Your task to perform on an android device: add a label to a message in the gmail app Image 0: 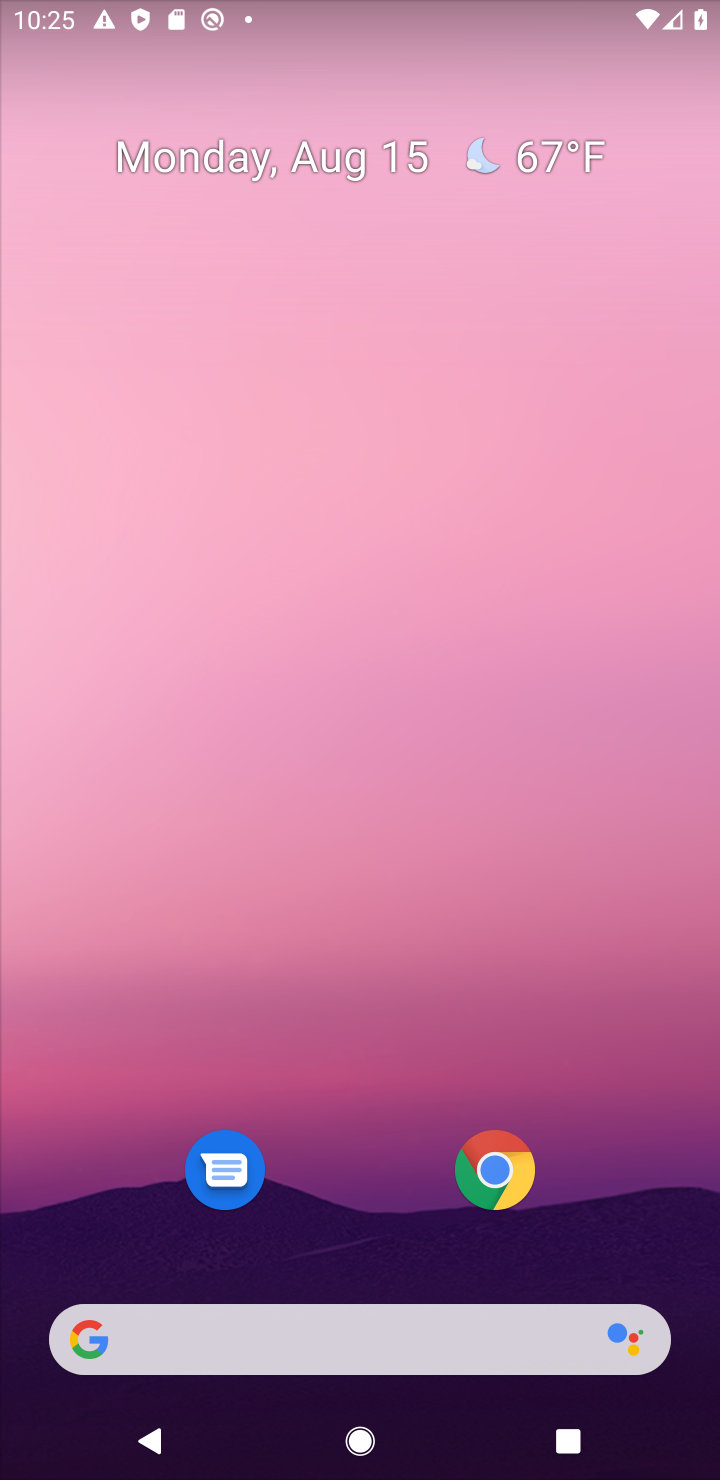
Step 0: click (387, 329)
Your task to perform on an android device: add a label to a message in the gmail app Image 1: 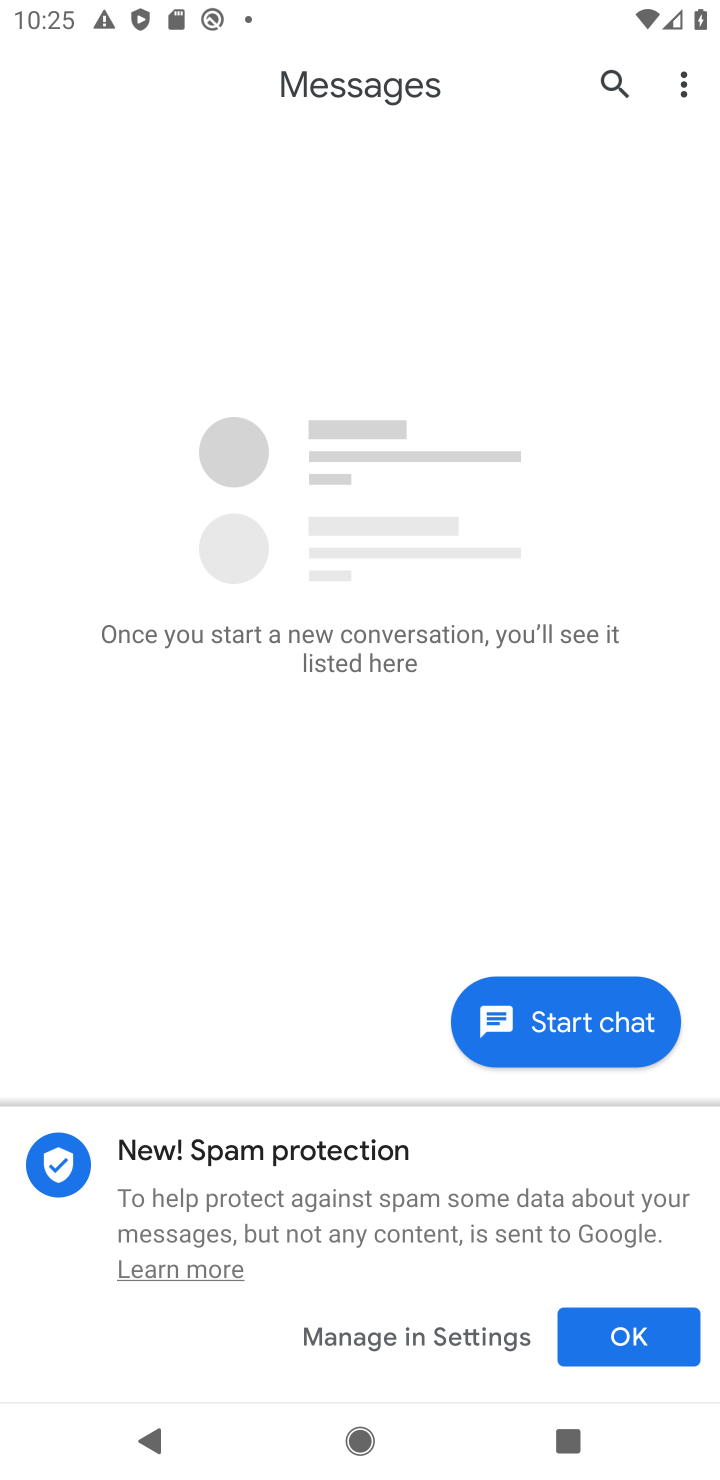
Step 1: drag from (397, 469) to (410, 164)
Your task to perform on an android device: add a label to a message in the gmail app Image 2: 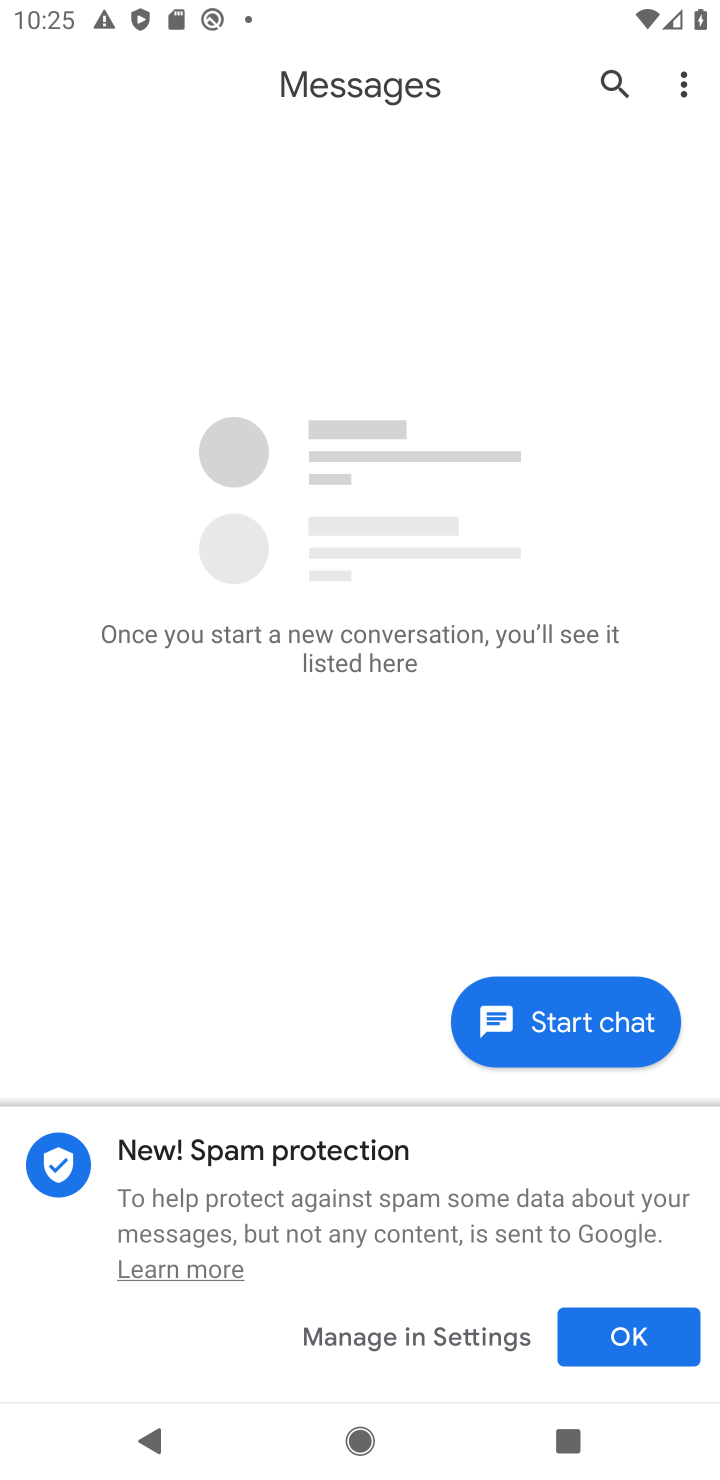
Step 2: click (335, 975)
Your task to perform on an android device: add a label to a message in the gmail app Image 3: 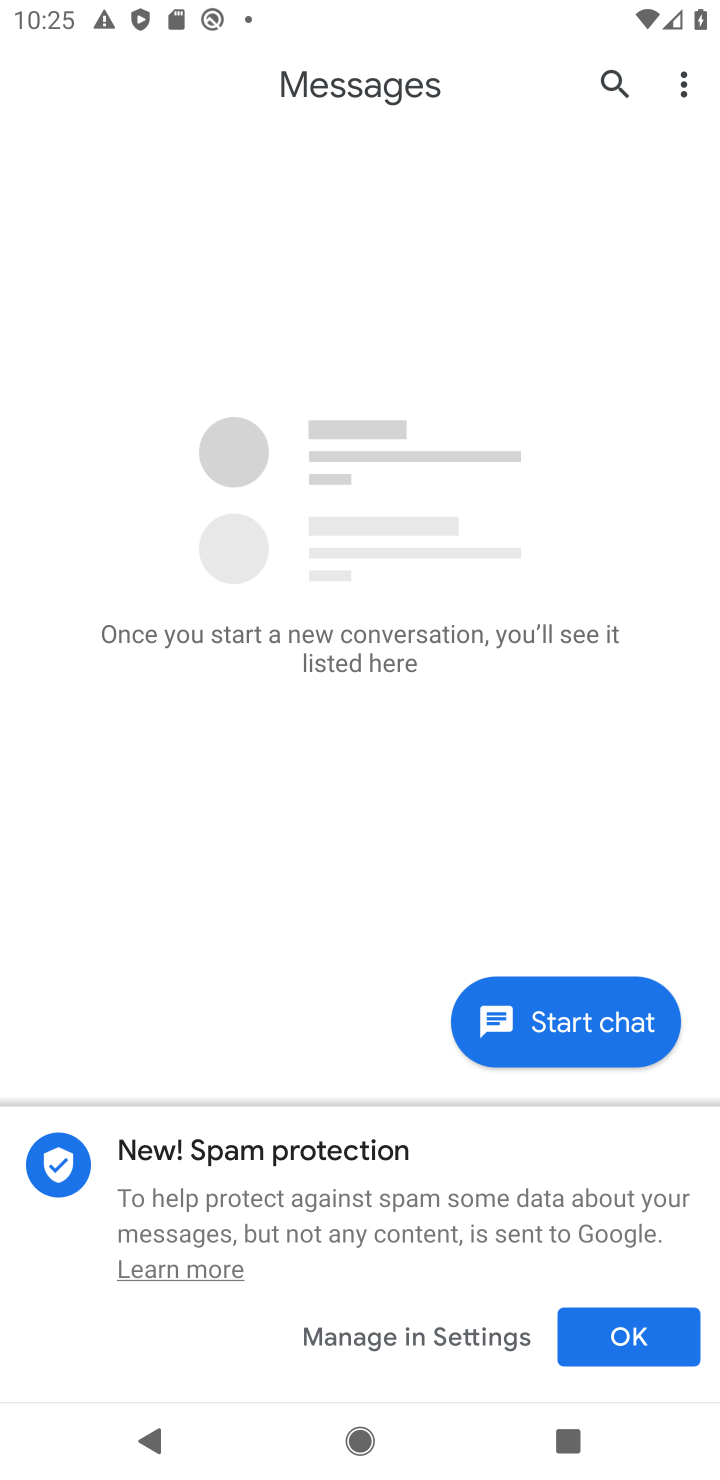
Step 3: press home button
Your task to perform on an android device: add a label to a message in the gmail app Image 4: 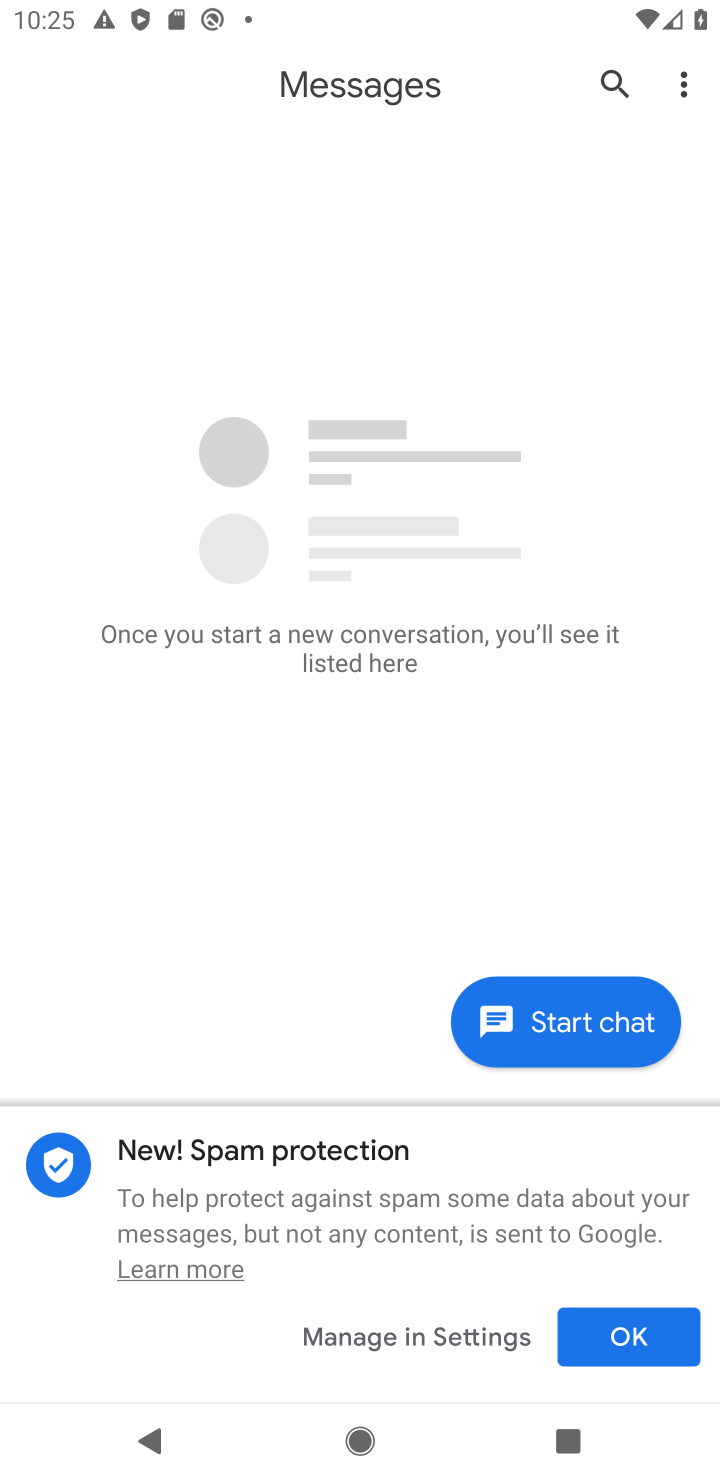
Step 4: press home button
Your task to perform on an android device: add a label to a message in the gmail app Image 5: 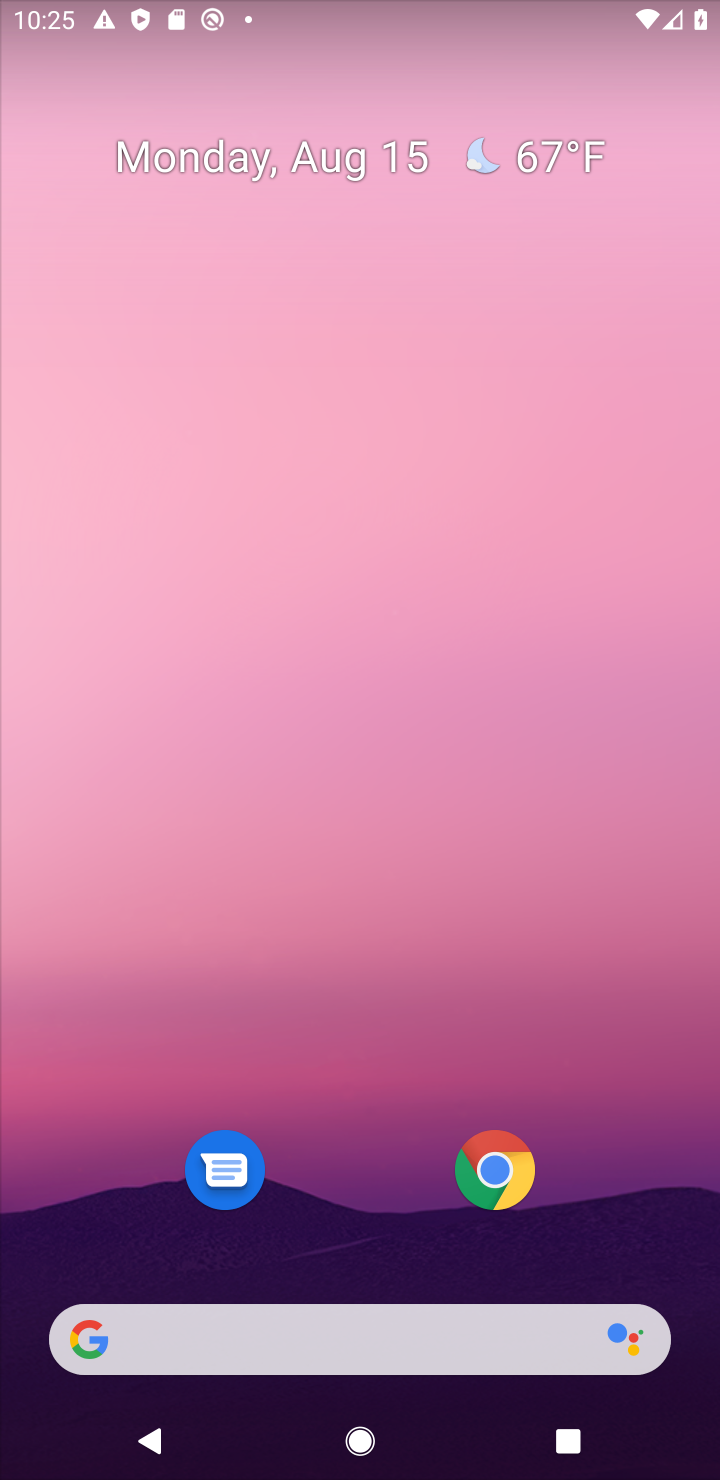
Step 5: drag from (391, 1242) to (440, 80)
Your task to perform on an android device: add a label to a message in the gmail app Image 6: 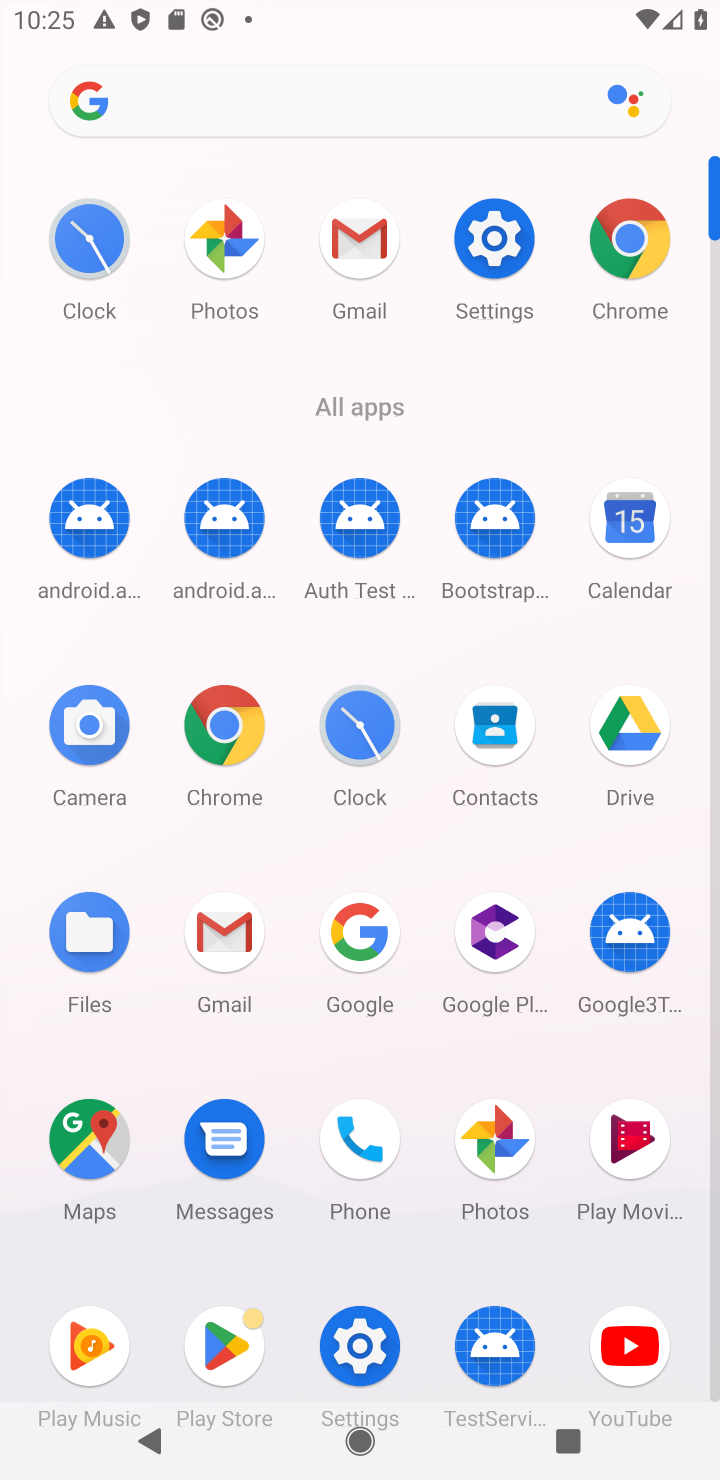
Step 6: click (358, 225)
Your task to perform on an android device: add a label to a message in the gmail app Image 7: 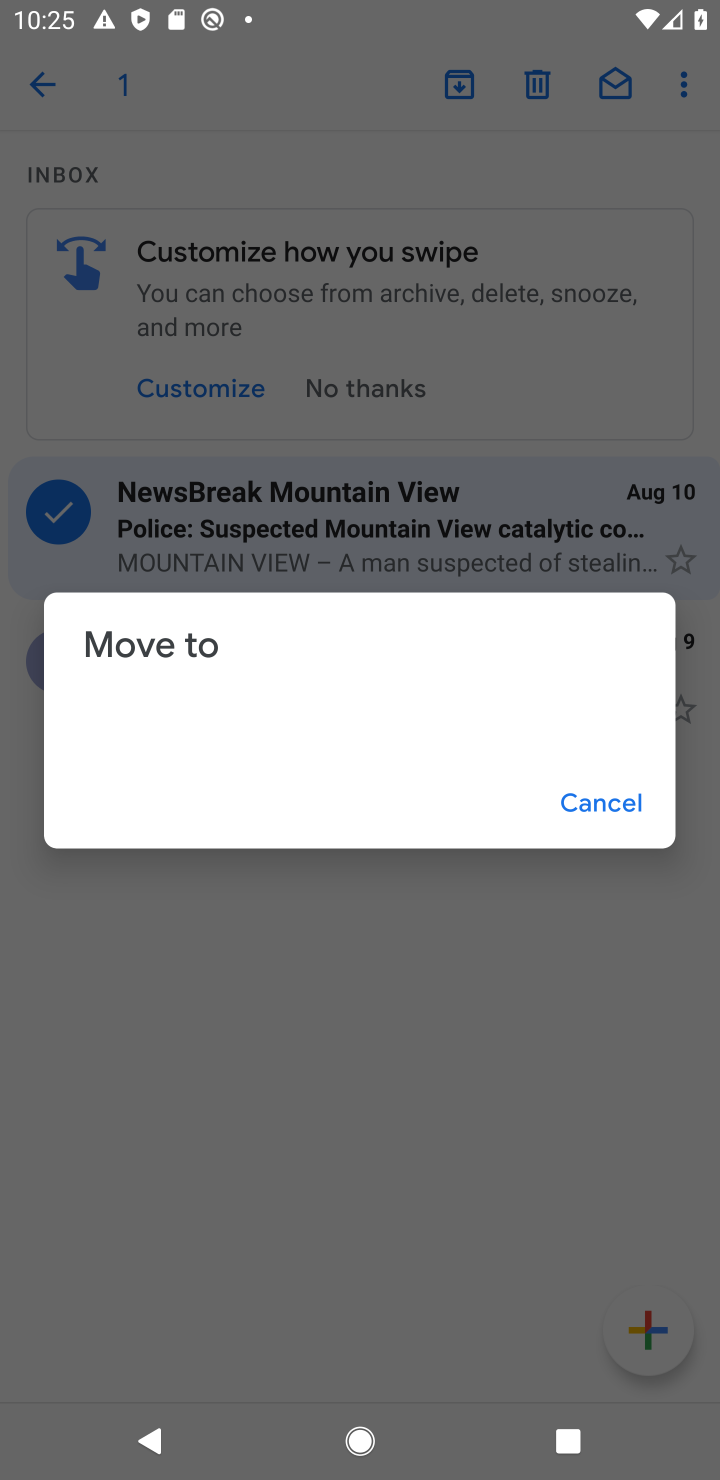
Step 7: click (618, 808)
Your task to perform on an android device: add a label to a message in the gmail app Image 8: 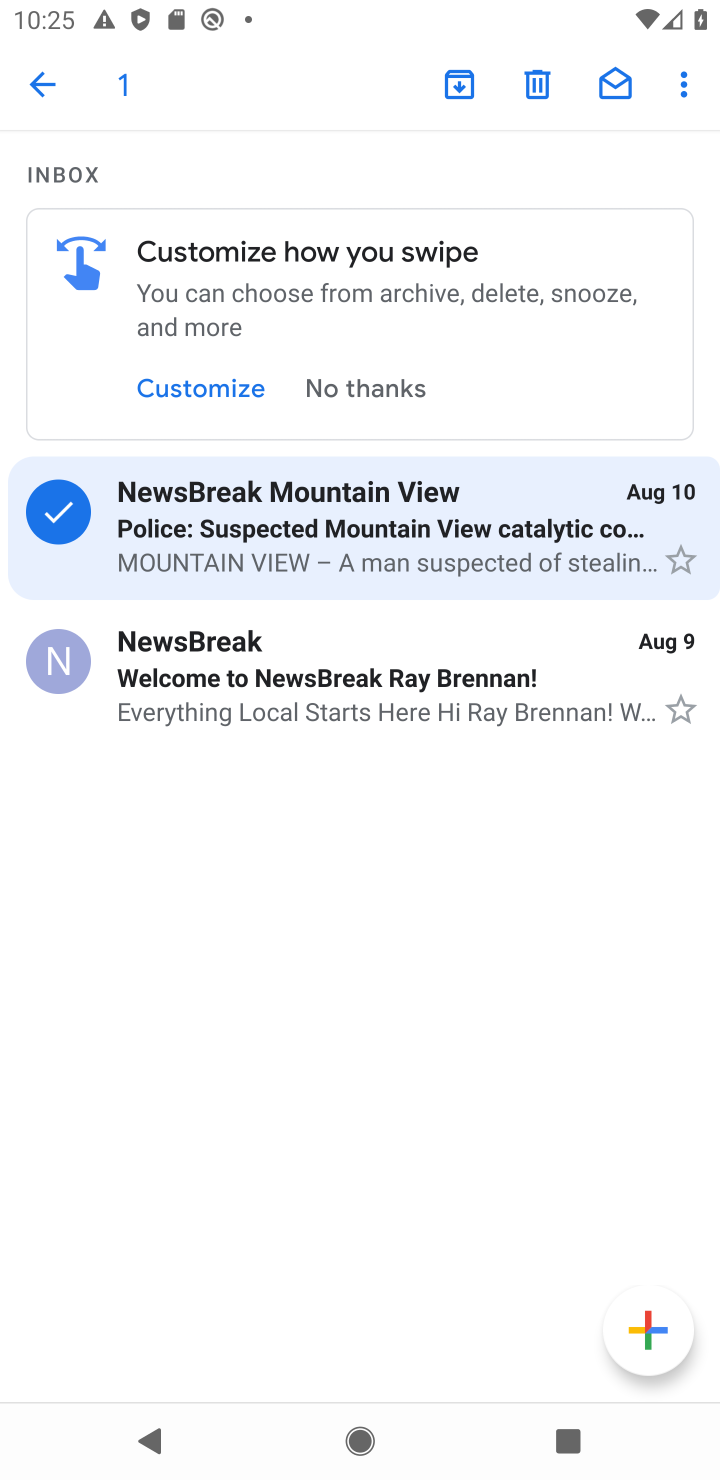
Step 8: click (687, 74)
Your task to perform on an android device: add a label to a message in the gmail app Image 9: 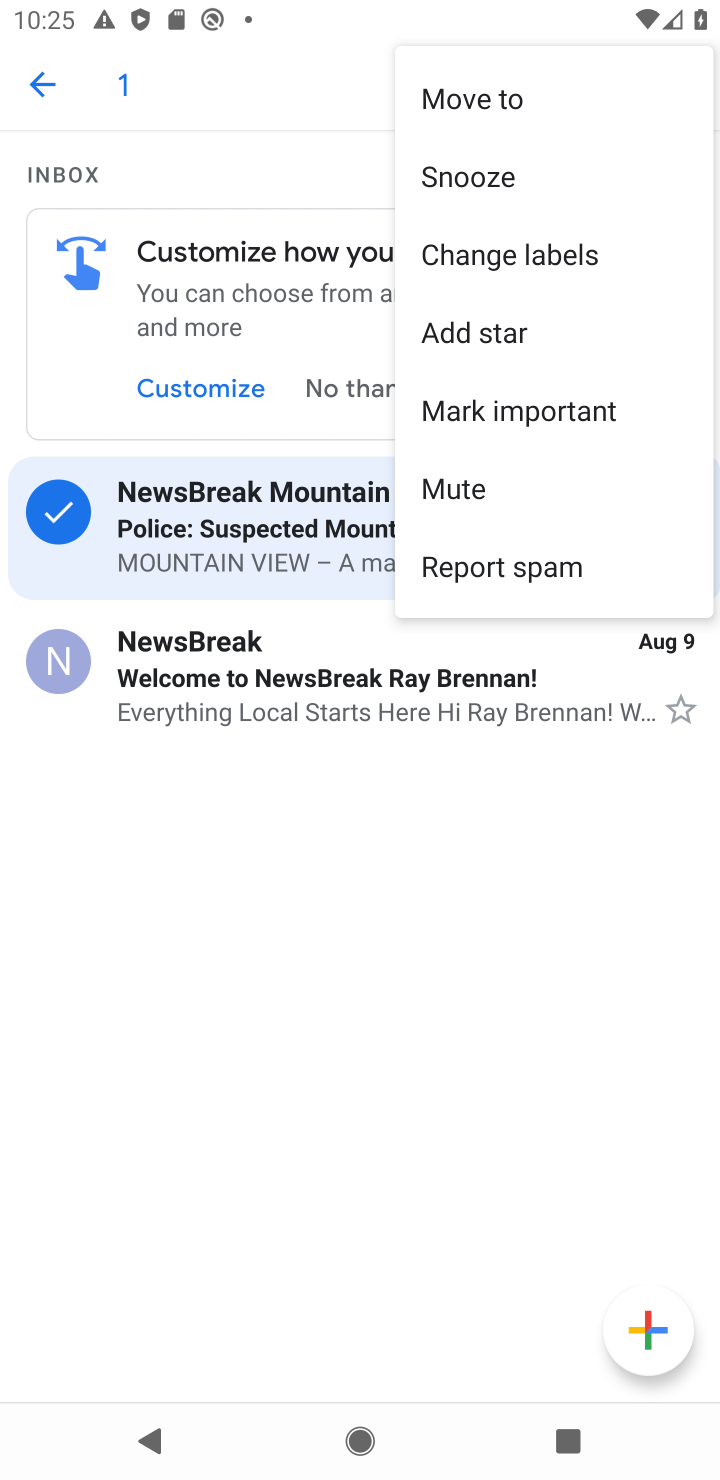
Step 9: click (554, 251)
Your task to perform on an android device: add a label to a message in the gmail app Image 10: 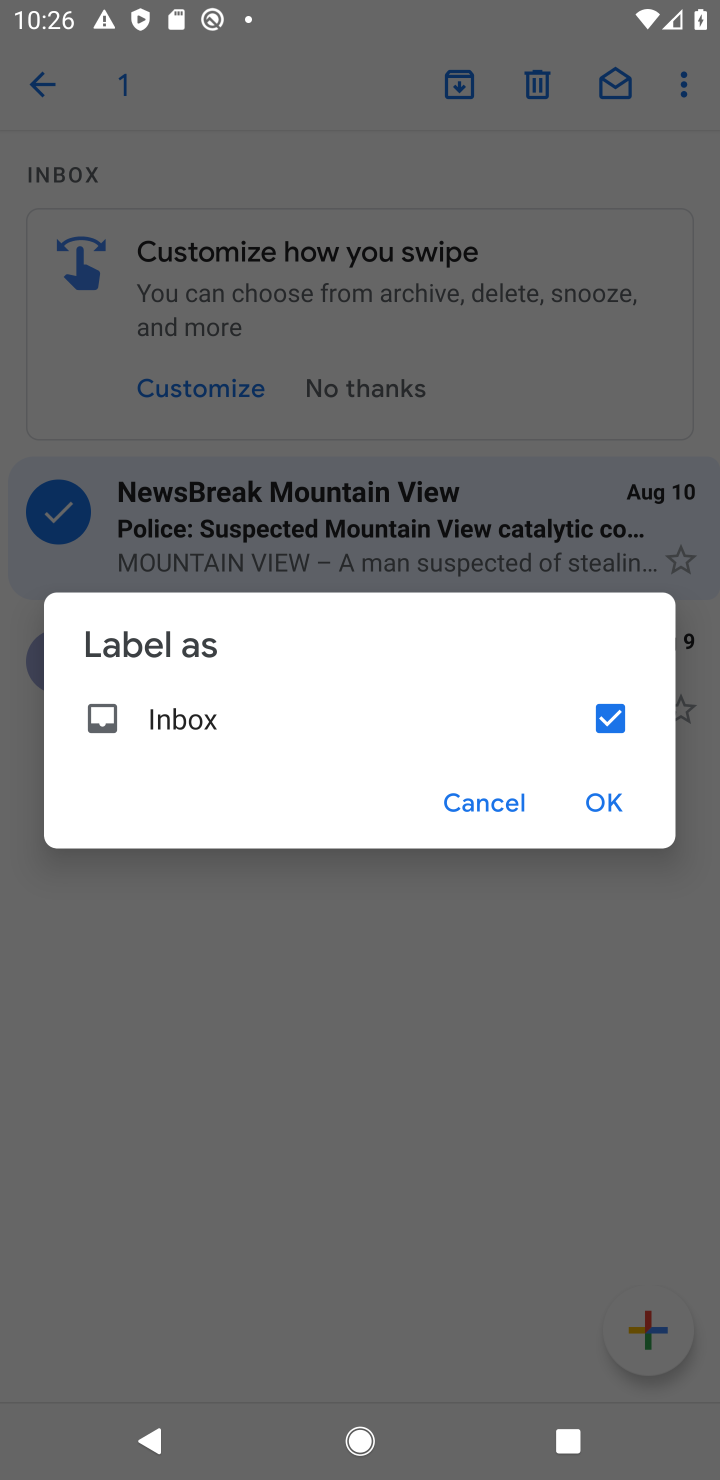
Step 10: click (610, 719)
Your task to perform on an android device: add a label to a message in the gmail app Image 11: 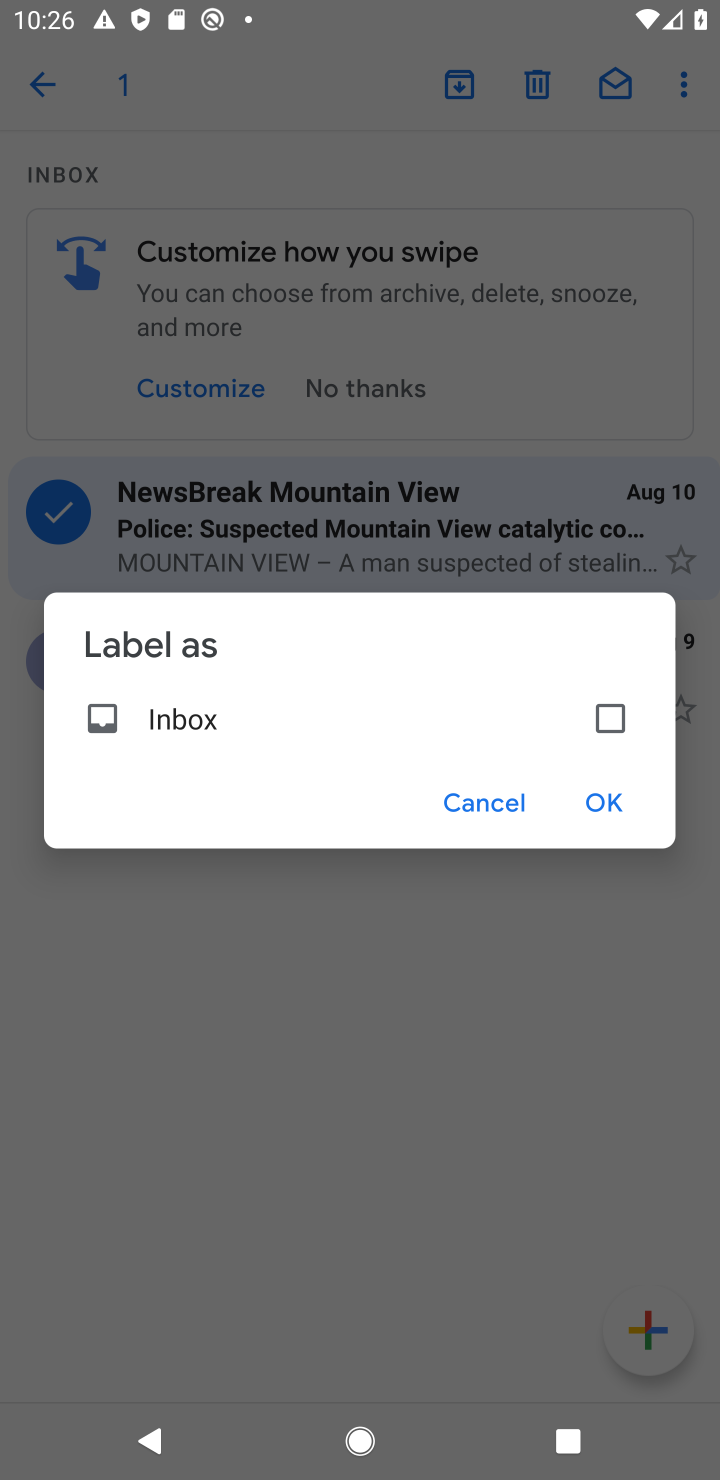
Step 11: click (602, 790)
Your task to perform on an android device: add a label to a message in the gmail app Image 12: 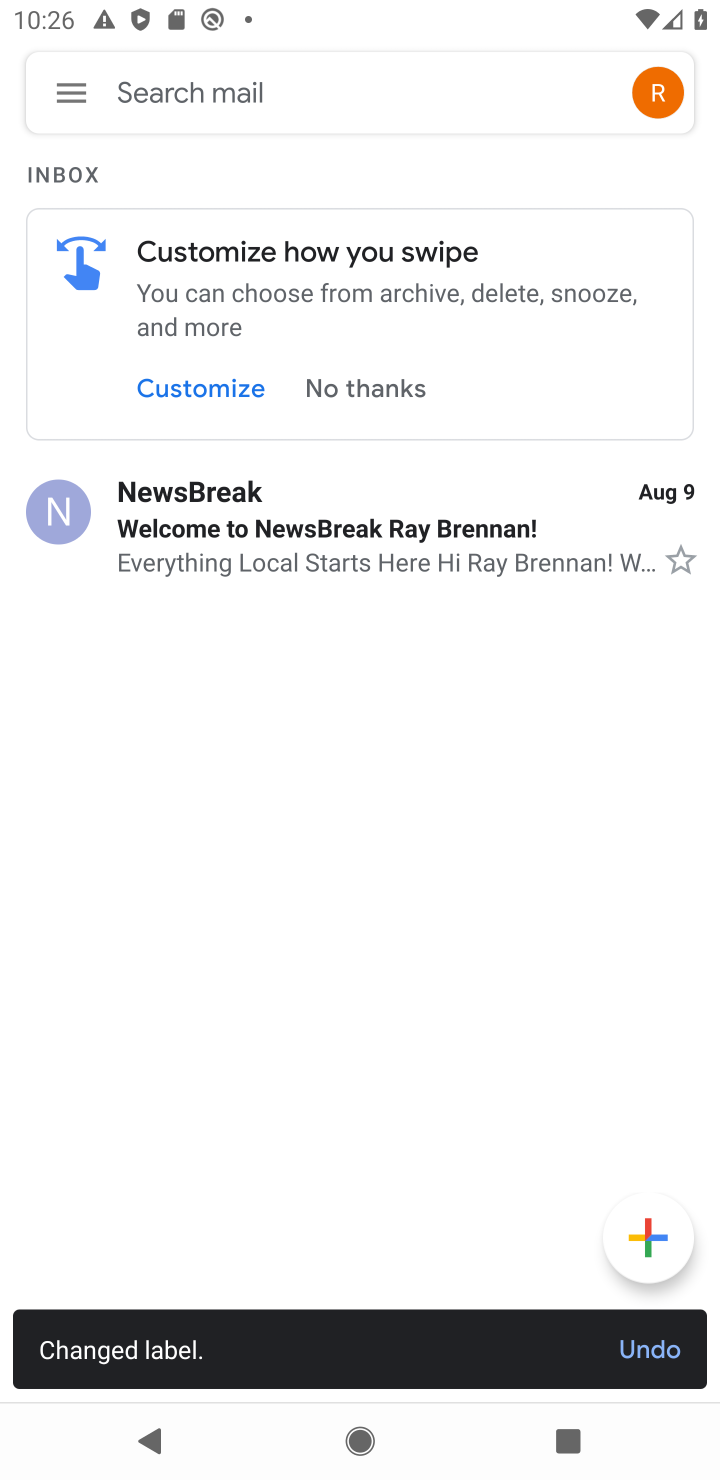
Step 12: task complete